Your task to perform on an android device: turn on bluetooth scan Image 0: 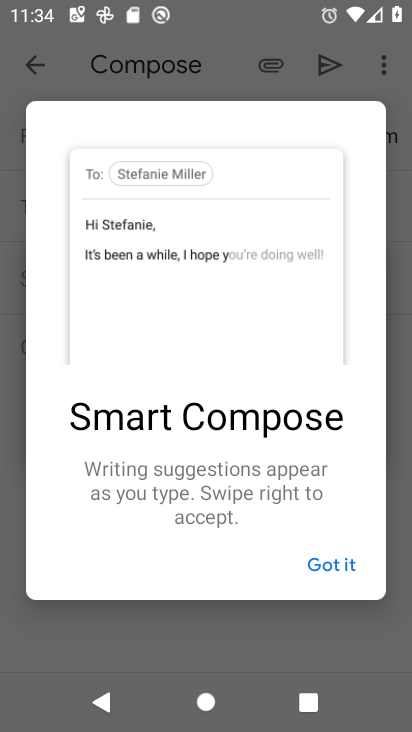
Step 0: press home button
Your task to perform on an android device: turn on bluetooth scan Image 1: 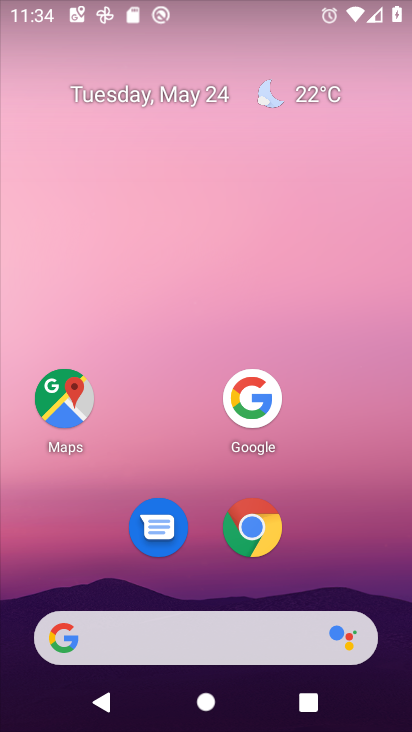
Step 1: drag from (148, 636) to (331, 391)
Your task to perform on an android device: turn on bluetooth scan Image 2: 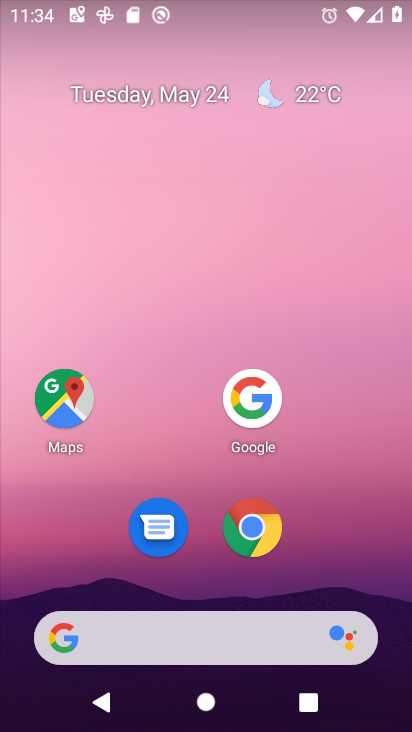
Step 2: drag from (158, 641) to (274, 222)
Your task to perform on an android device: turn on bluetooth scan Image 3: 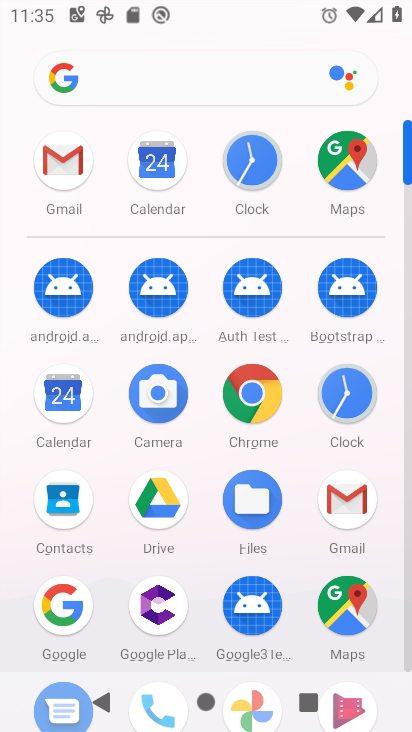
Step 3: drag from (191, 586) to (214, 273)
Your task to perform on an android device: turn on bluetooth scan Image 4: 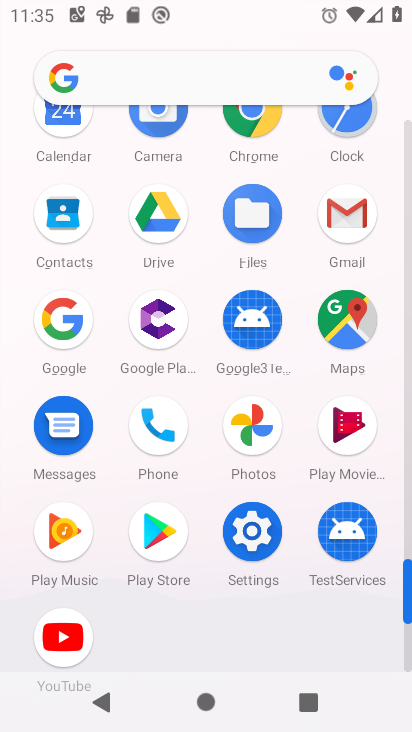
Step 4: click (251, 547)
Your task to perform on an android device: turn on bluetooth scan Image 5: 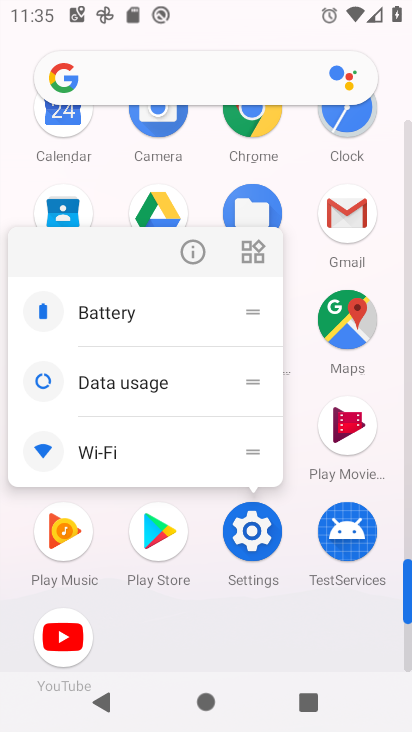
Step 5: click (251, 547)
Your task to perform on an android device: turn on bluetooth scan Image 6: 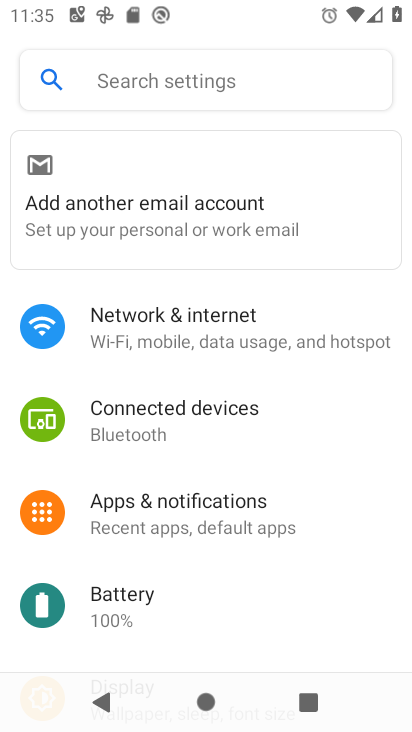
Step 6: drag from (256, 532) to (266, 491)
Your task to perform on an android device: turn on bluetooth scan Image 7: 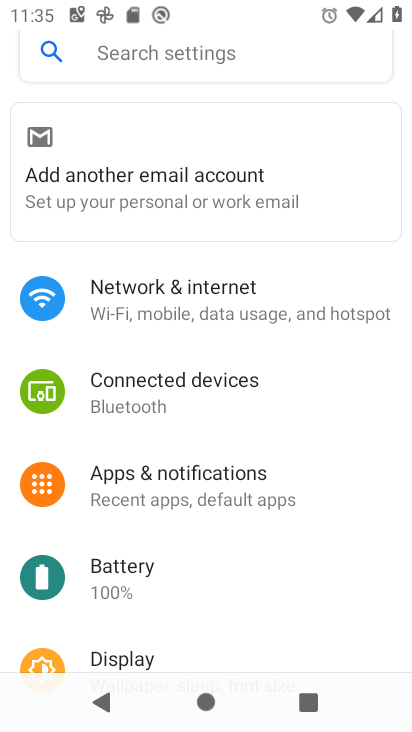
Step 7: drag from (226, 582) to (269, 206)
Your task to perform on an android device: turn on bluetooth scan Image 8: 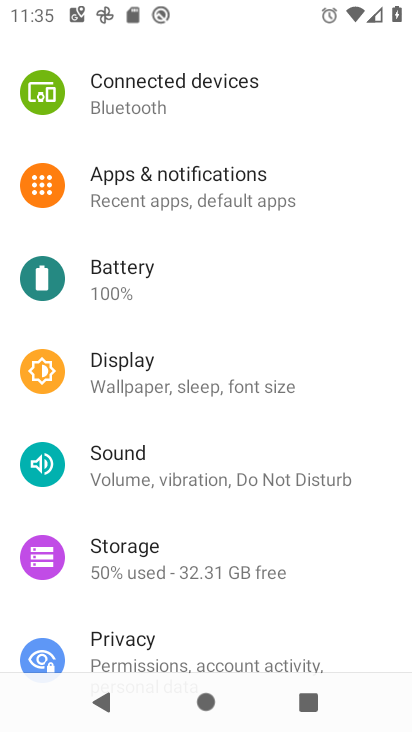
Step 8: drag from (248, 592) to (296, 300)
Your task to perform on an android device: turn on bluetooth scan Image 9: 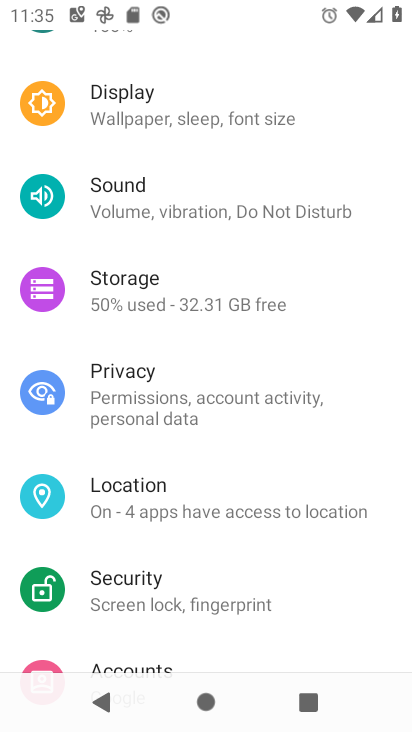
Step 9: click (225, 511)
Your task to perform on an android device: turn on bluetooth scan Image 10: 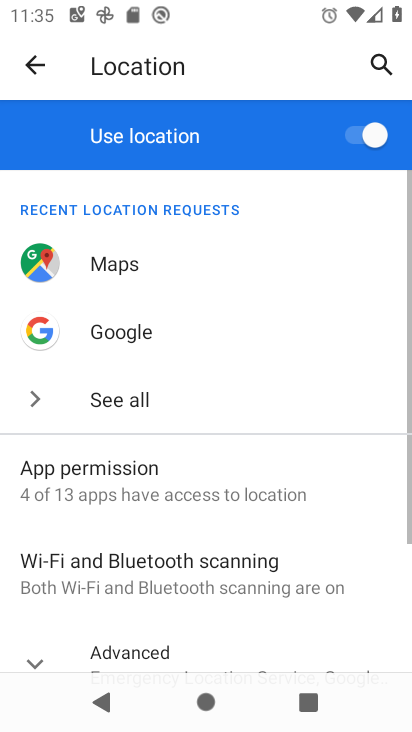
Step 10: click (221, 572)
Your task to perform on an android device: turn on bluetooth scan Image 11: 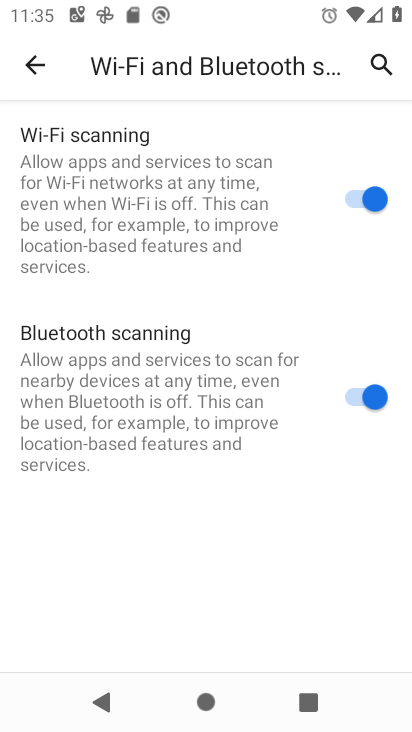
Step 11: task complete